Your task to perform on an android device: choose inbox layout in the gmail app Image 0: 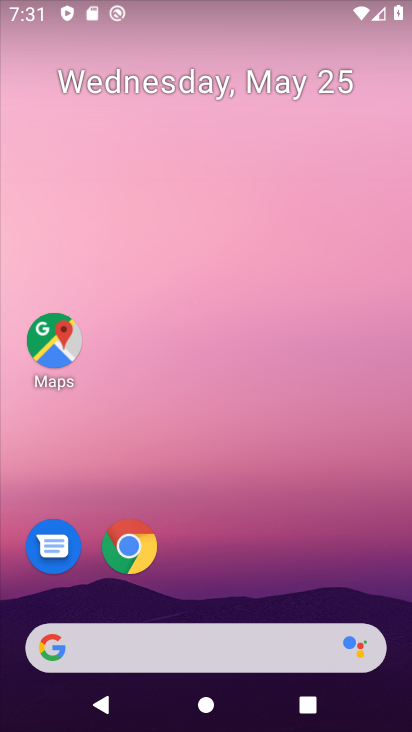
Step 0: drag from (379, 600) to (373, 219)
Your task to perform on an android device: choose inbox layout in the gmail app Image 1: 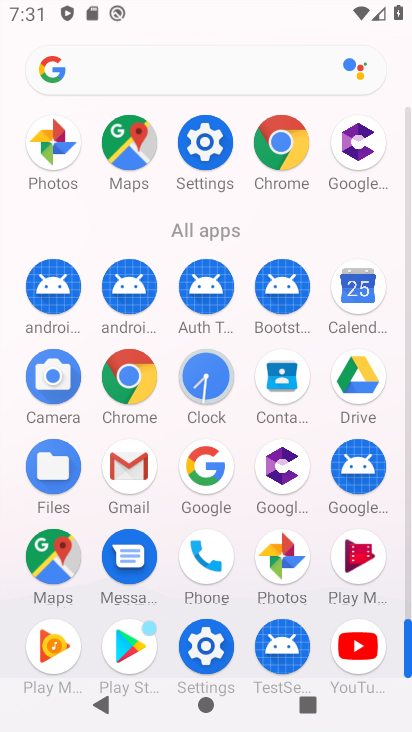
Step 1: click (134, 467)
Your task to perform on an android device: choose inbox layout in the gmail app Image 2: 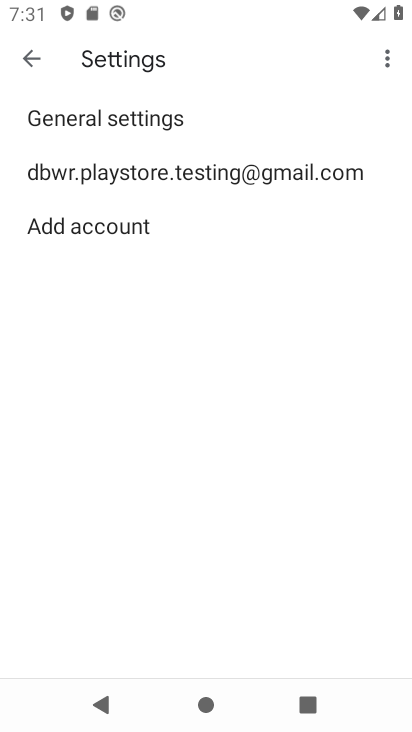
Step 2: click (323, 176)
Your task to perform on an android device: choose inbox layout in the gmail app Image 3: 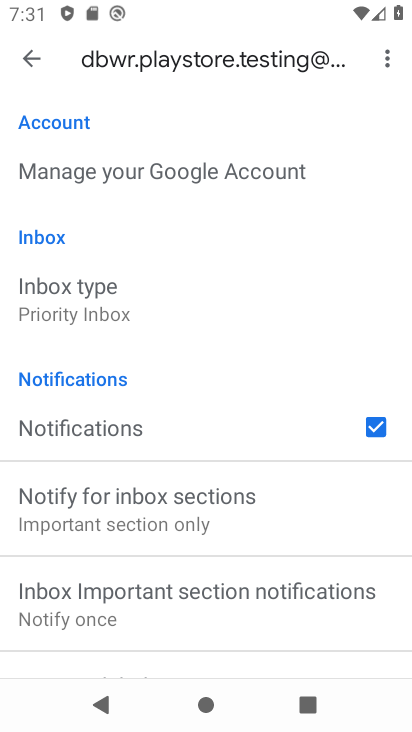
Step 3: drag from (326, 476) to (335, 375)
Your task to perform on an android device: choose inbox layout in the gmail app Image 4: 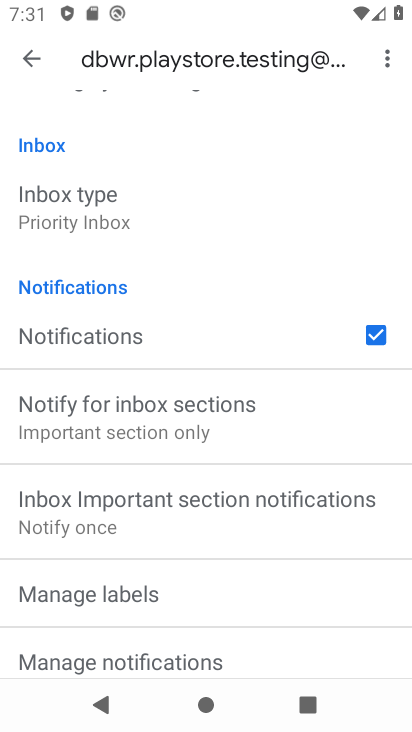
Step 4: drag from (334, 549) to (342, 416)
Your task to perform on an android device: choose inbox layout in the gmail app Image 5: 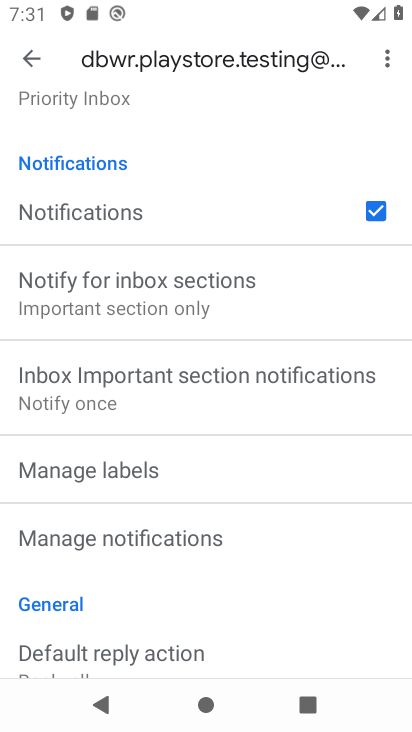
Step 5: drag from (343, 580) to (347, 456)
Your task to perform on an android device: choose inbox layout in the gmail app Image 6: 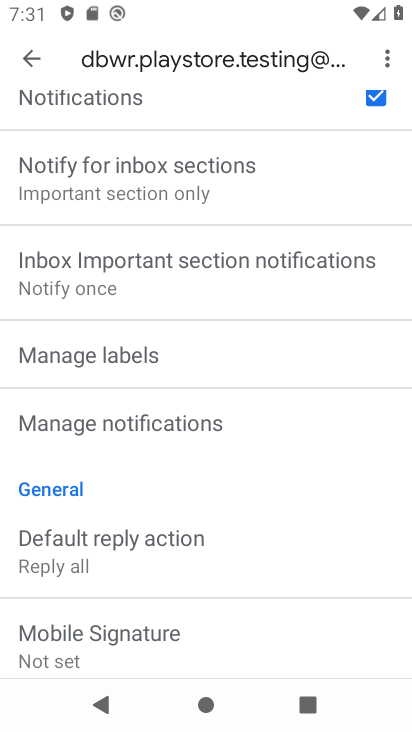
Step 6: drag from (335, 587) to (345, 489)
Your task to perform on an android device: choose inbox layout in the gmail app Image 7: 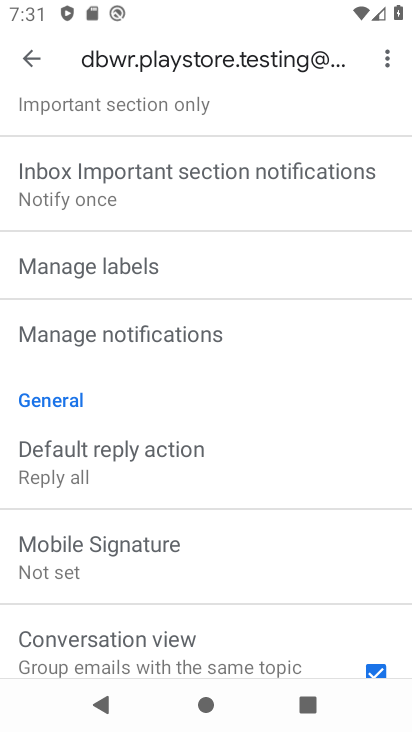
Step 7: drag from (342, 599) to (335, 488)
Your task to perform on an android device: choose inbox layout in the gmail app Image 8: 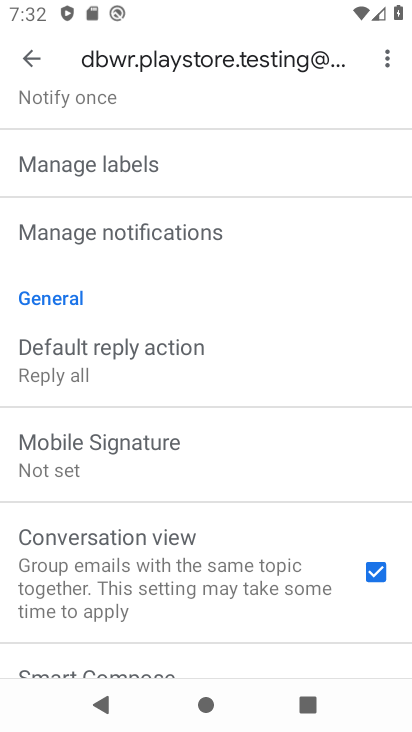
Step 8: drag from (332, 612) to (338, 496)
Your task to perform on an android device: choose inbox layout in the gmail app Image 9: 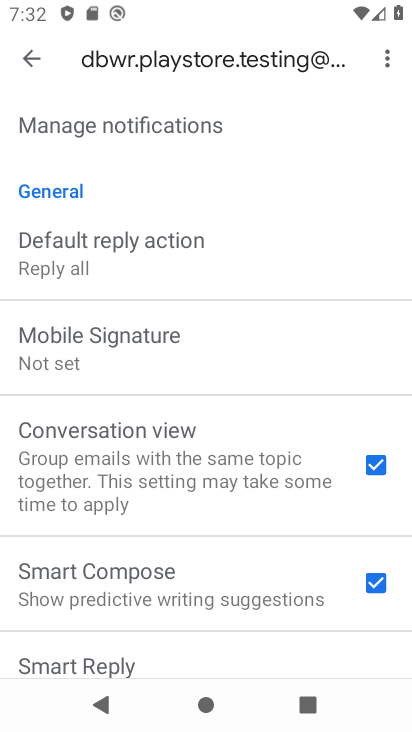
Step 9: drag from (327, 643) to (345, 499)
Your task to perform on an android device: choose inbox layout in the gmail app Image 10: 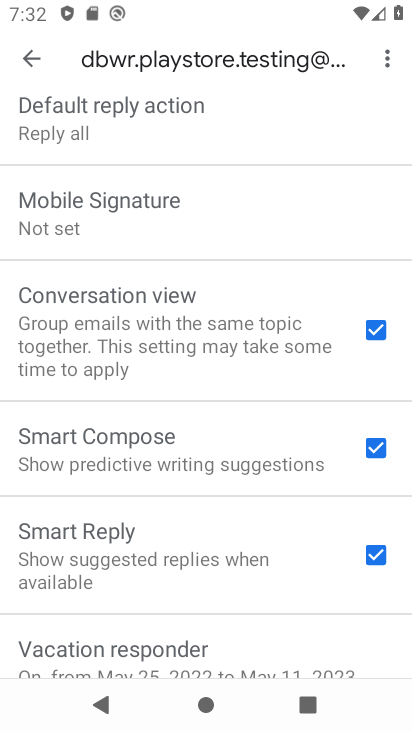
Step 10: drag from (325, 631) to (328, 496)
Your task to perform on an android device: choose inbox layout in the gmail app Image 11: 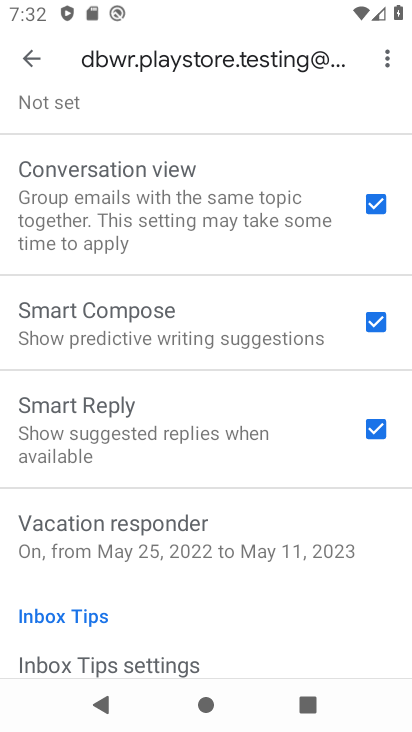
Step 11: drag from (333, 611) to (347, 451)
Your task to perform on an android device: choose inbox layout in the gmail app Image 12: 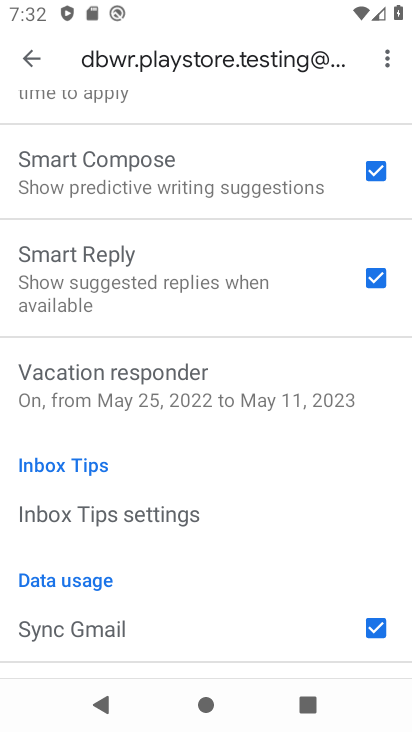
Step 12: drag from (324, 586) to (325, 360)
Your task to perform on an android device: choose inbox layout in the gmail app Image 13: 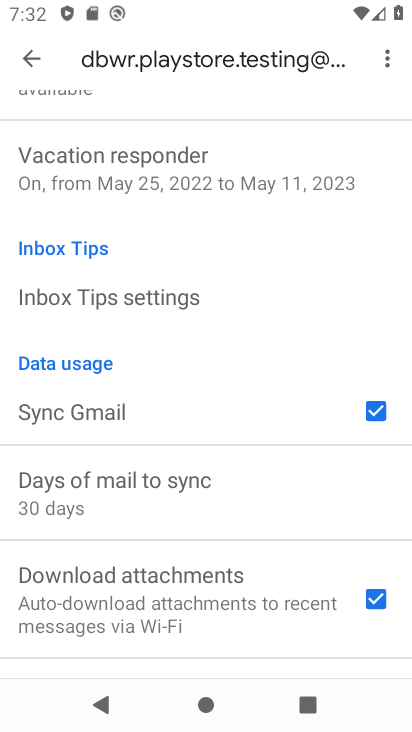
Step 13: drag from (309, 277) to (286, 376)
Your task to perform on an android device: choose inbox layout in the gmail app Image 14: 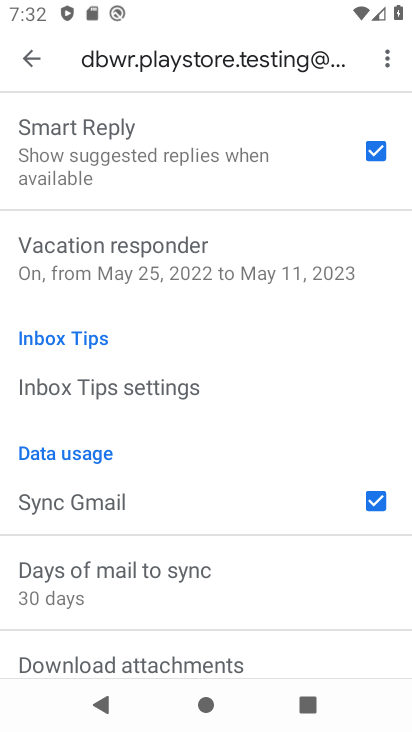
Step 14: drag from (300, 303) to (286, 430)
Your task to perform on an android device: choose inbox layout in the gmail app Image 15: 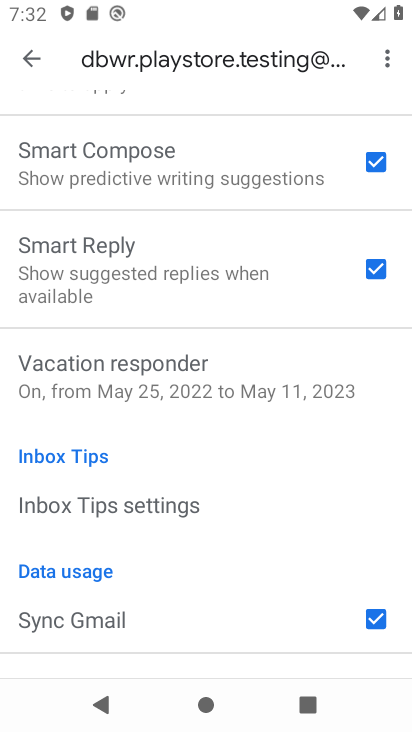
Step 15: drag from (310, 300) to (318, 412)
Your task to perform on an android device: choose inbox layout in the gmail app Image 16: 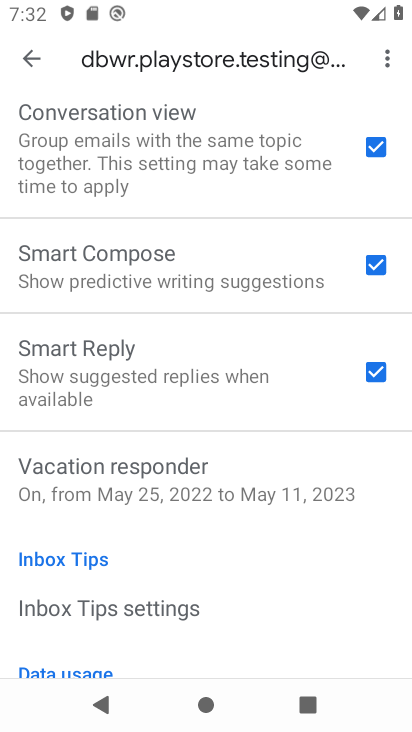
Step 16: drag from (311, 351) to (312, 477)
Your task to perform on an android device: choose inbox layout in the gmail app Image 17: 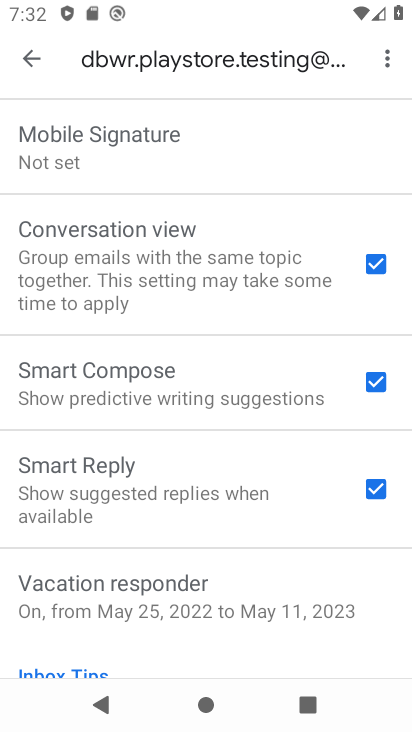
Step 17: drag from (329, 301) to (321, 494)
Your task to perform on an android device: choose inbox layout in the gmail app Image 18: 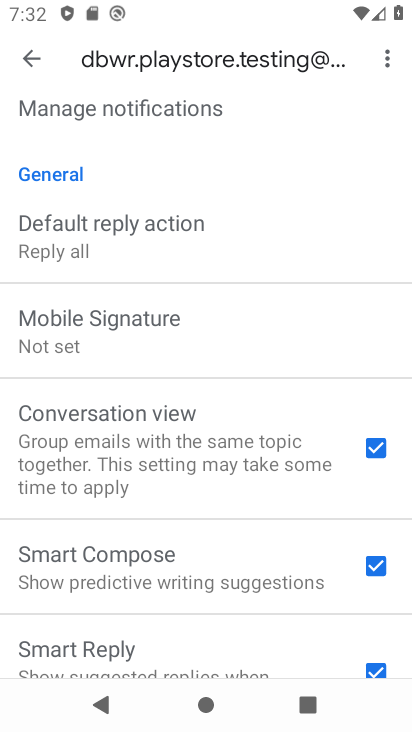
Step 18: drag from (332, 253) to (319, 420)
Your task to perform on an android device: choose inbox layout in the gmail app Image 19: 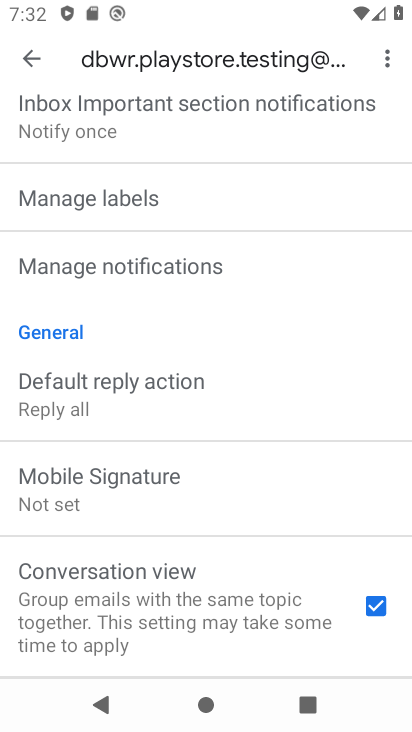
Step 19: drag from (308, 247) to (323, 407)
Your task to perform on an android device: choose inbox layout in the gmail app Image 20: 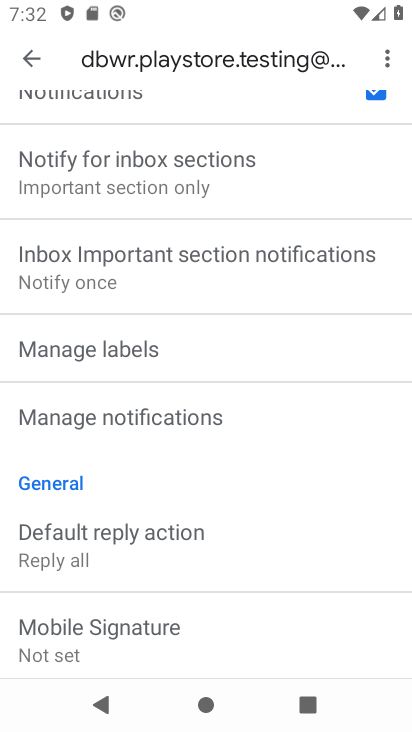
Step 20: drag from (319, 180) to (316, 400)
Your task to perform on an android device: choose inbox layout in the gmail app Image 21: 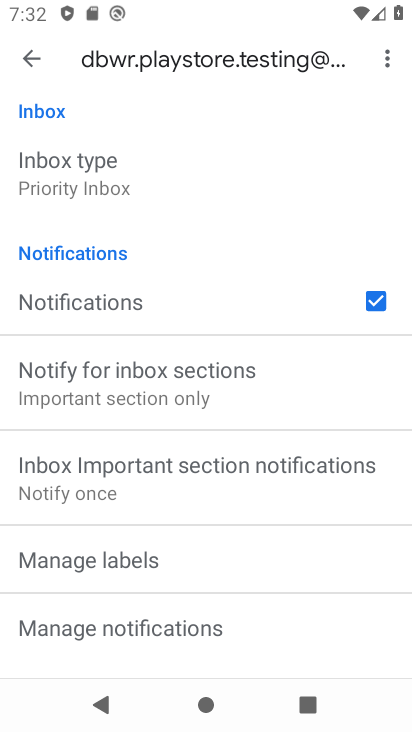
Step 21: click (104, 180)
Your task to perform on an android device: choose inbox layout in the gmail app Image 22: 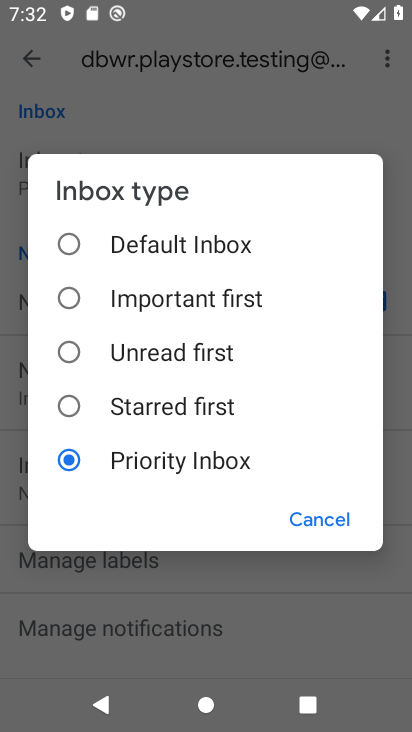
Step 22: click (154, 249)
Your task to perform on an android device: choose inbox layout in the gmail app Image 23: 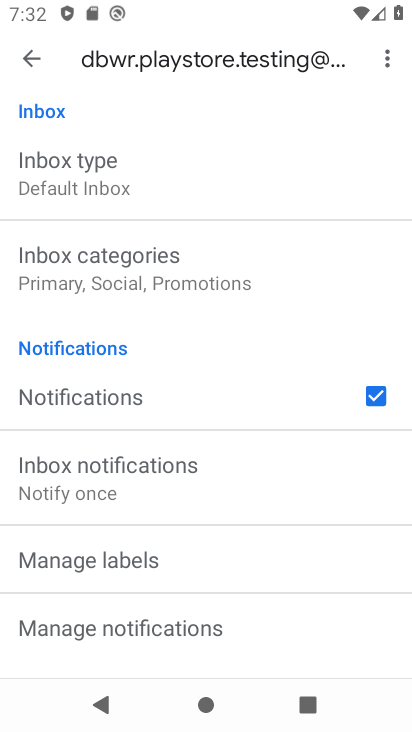
Step 23: task complete